Your task to perform on an android device: see tabs open on other devices in the chrome app Image 0: 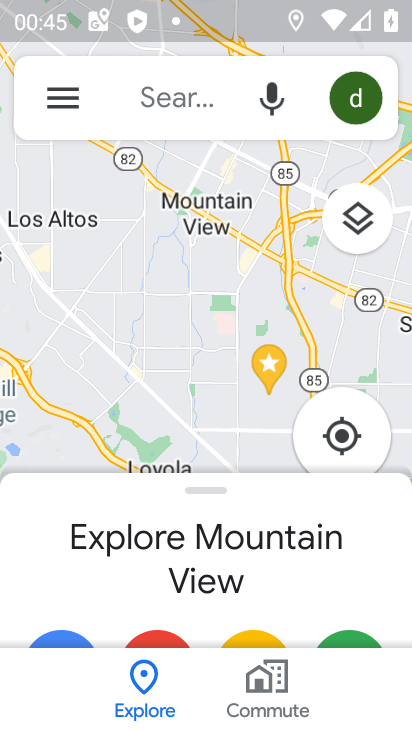
Step 0: press home button
Your task to perform on an android device: see tabs open on other devices in the chrome app Image 1: 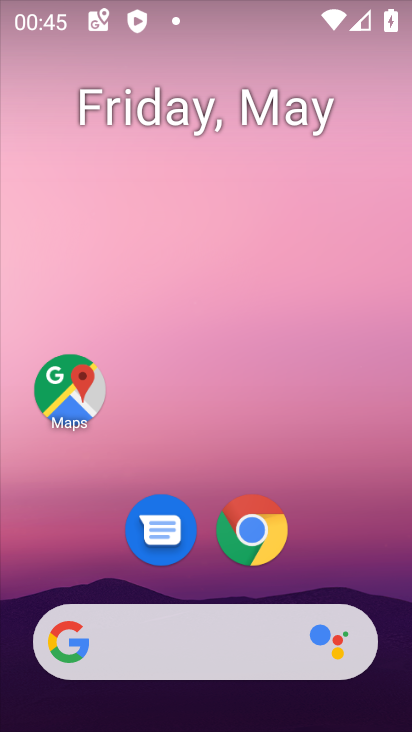
Step 1: click (252, 530)
Your task to perform on an android device: see tabs open on other devices in the chrome app Image 2: 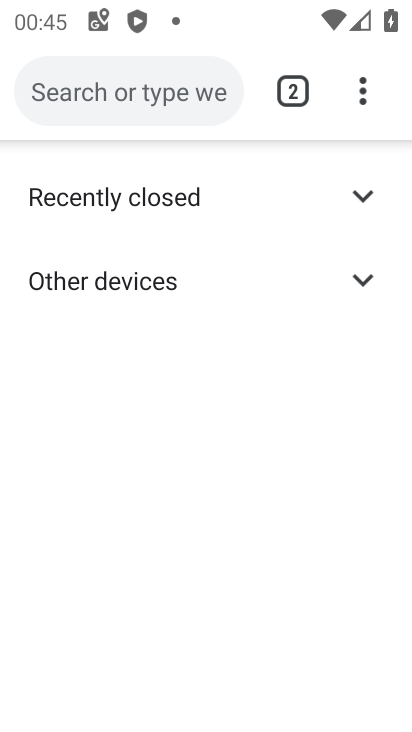
Step 2: click (362, 95)
Your task to perform on an android device: see tabs open on other devices in the chrome app Image 3: 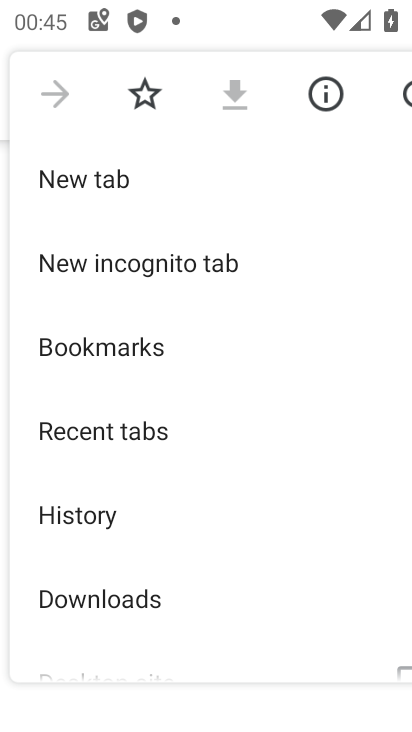
Step 3: click (125, 419)
Your task to perform on an android device: see tabs open on other devices in the chrome app Image 4: 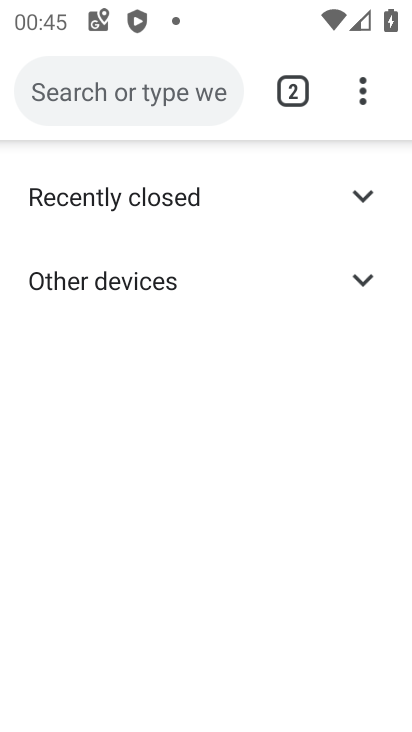
Step 4: task complete